Your task to perform on an android device: see tabs open on other devices in the chrome app Image 0: 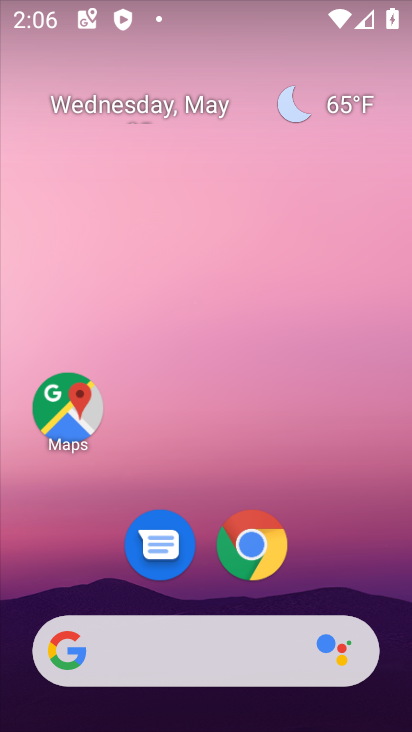
Step 0: click (256, 540)
Your task to perform on an android device: see tabs open on other devices in the chrome app Image 1: 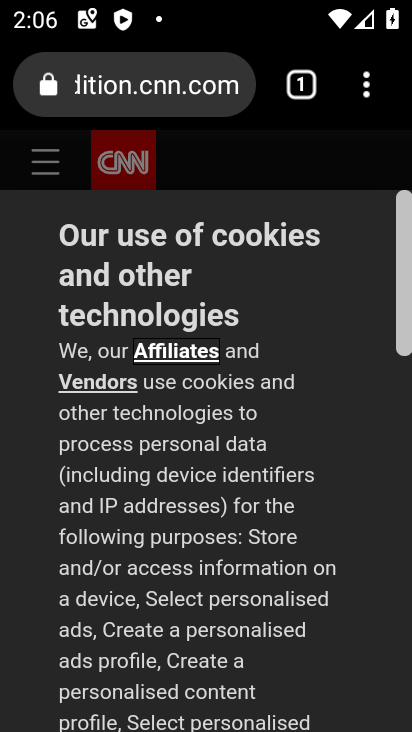
Step 1: click (374, 74)
Your task to perform on an android device: see tabs open on other devices in the chrome app Image 2: 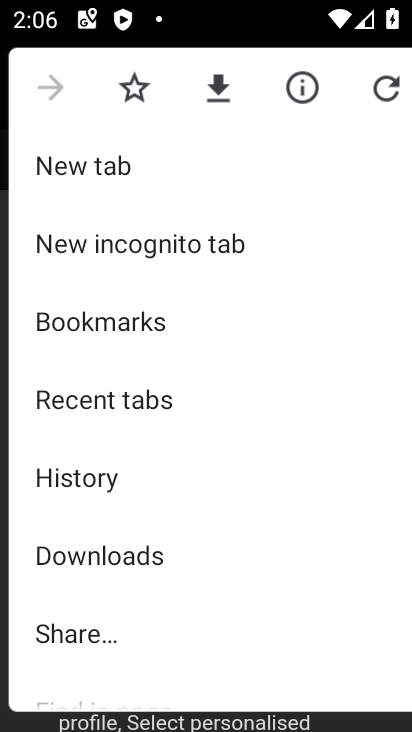
Step 2: click (192, 408)
Your task to perform on an android device: see tabs open on other devices in the chrome app Image 3: 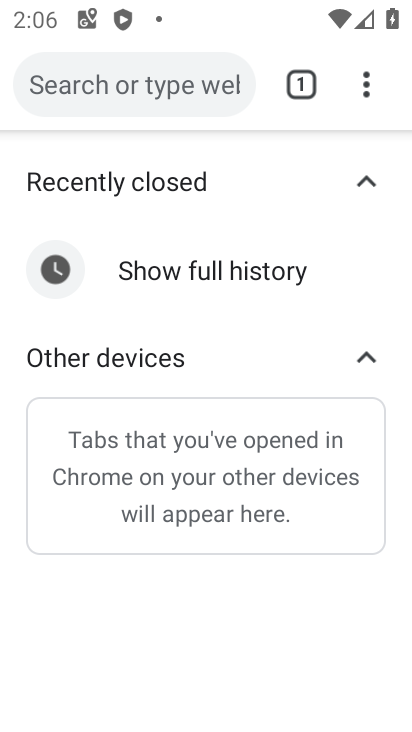
Step 3: task complete